Your task to perform on an android device: toggle notification dots Image 0: 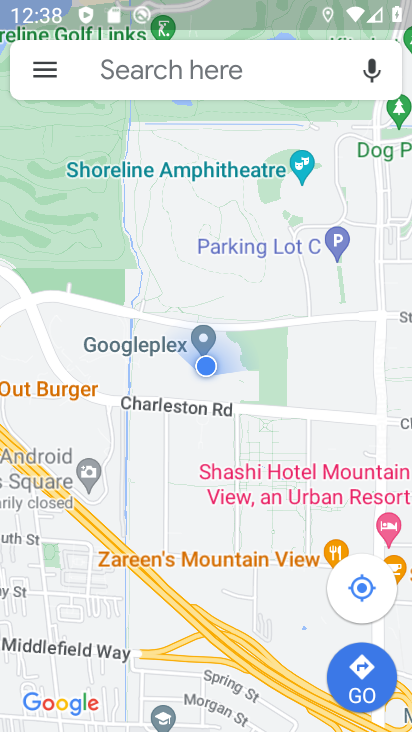
Step 0: press back button
Your task to perform on an android device: toggle notification dots Image 1: 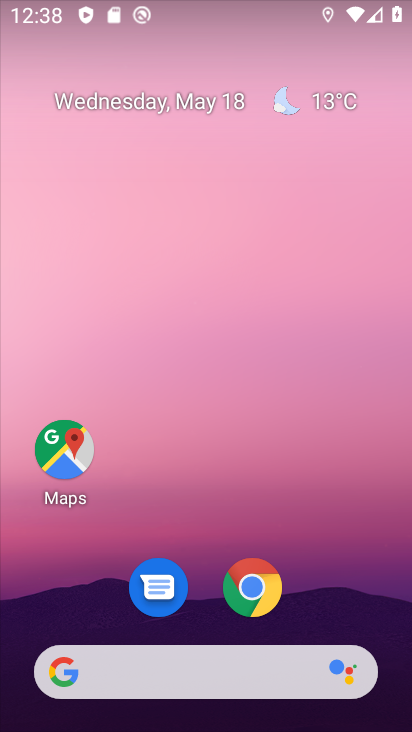
Step 1: drag from (176, 604) to (270, 146)
Your task to perform on an android device: toggle notification dots Image 2: 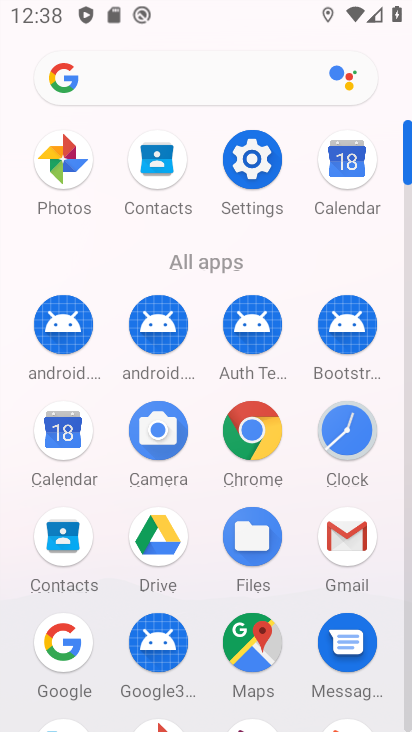
Step 2: click (264, 174)
Your task to perform on an android device: toggle notification dots Image 3: 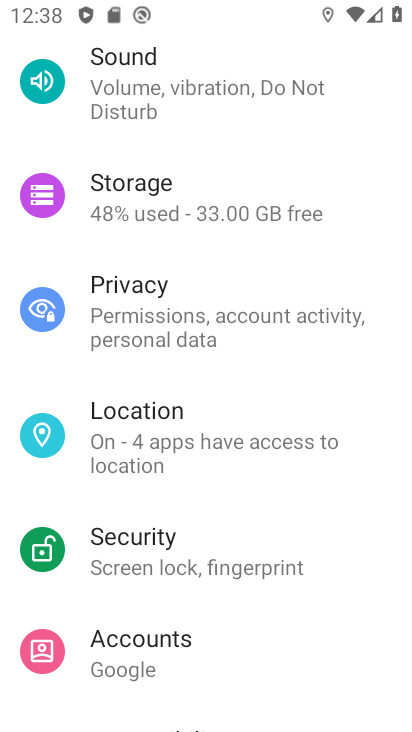
Step 3: drag from (208, 193) to (194, 570)
Your task to perform on an android device: toggle notification dots Image 4: 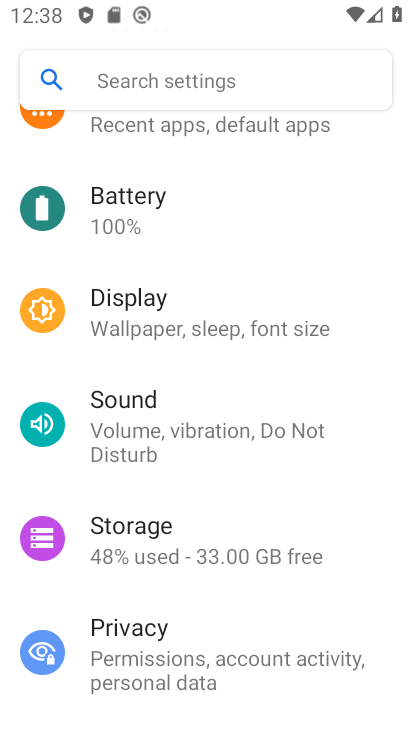
Step 4: drag from (184, 210) to (121, 604)
Your task to perform on an android device: toggle notification dots Image 5: 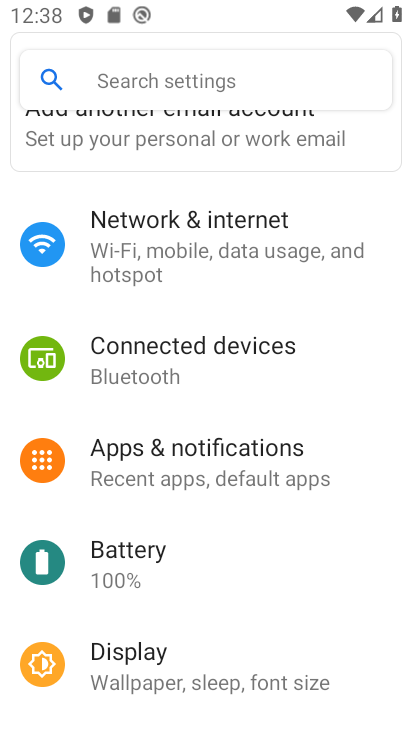
Step 5: click (290, 449)
Your task to perform on an android device: toggle notification dots Image 6: 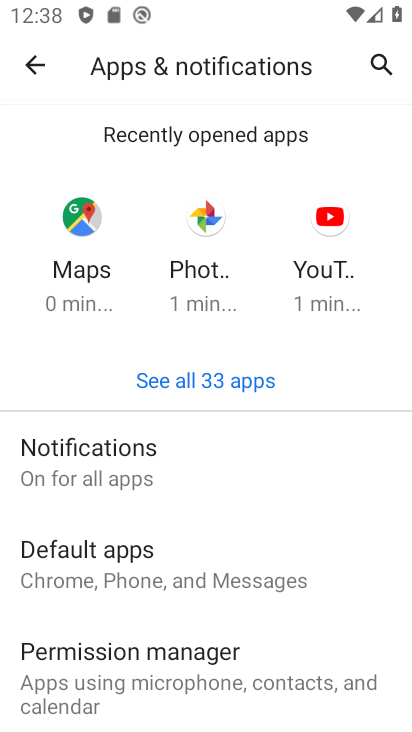
Step 6: click (185, 466)
Your task to perform on an android device: toggle notification dots Image 7: 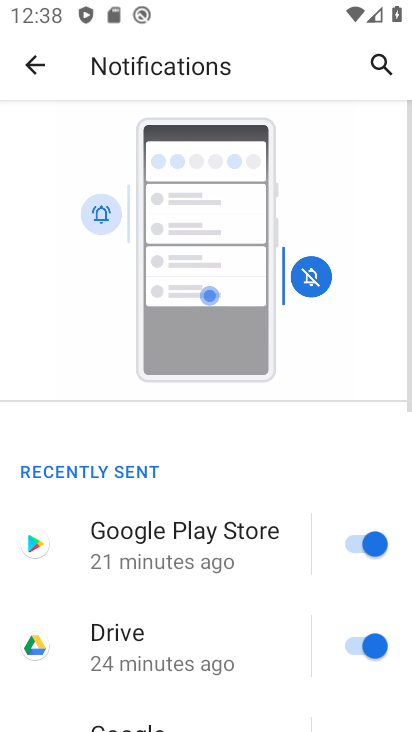
Step 7: drag from (148, 698) to (266, 223)
Your task to perform on an android device: toggle notification dots Image 8: 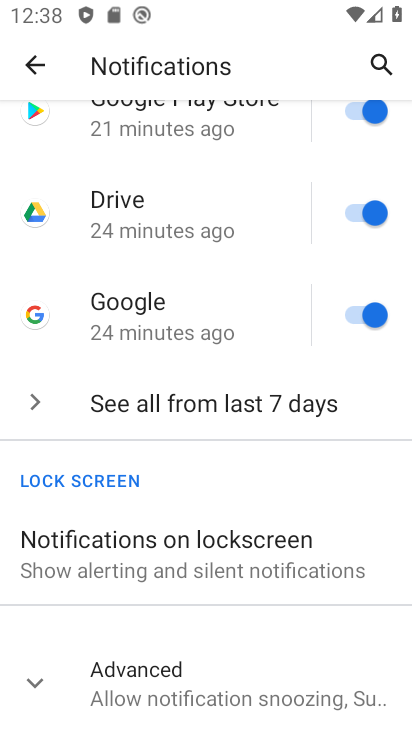
Step 8: drag from (211, 603) to (269, 189)
Your task to perform on an android device: toggle notification dots Image 9: 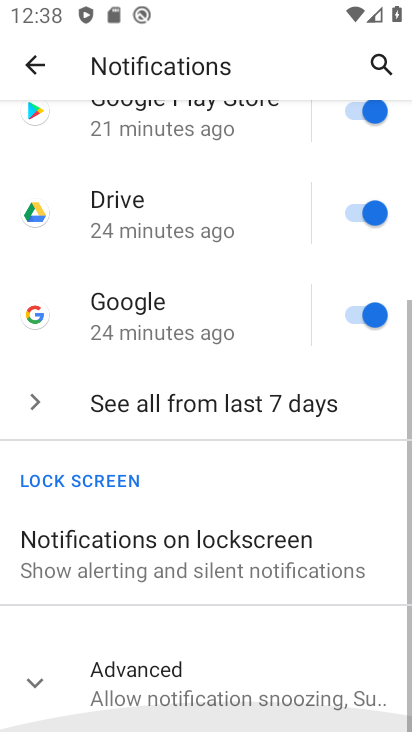
Step 9: click (236, 673)
Your task to perform on an android device: toggle notification dots Image 10: 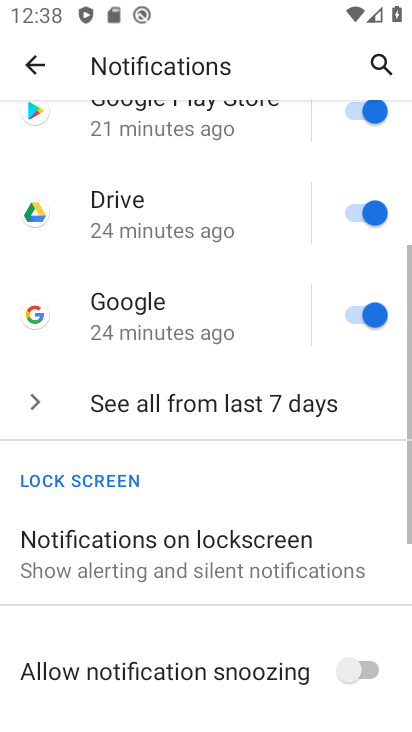
Step 10: drag from (247, 635) to (303, 268)
Your task to perform on an android device: toggle notification dots Image 11: 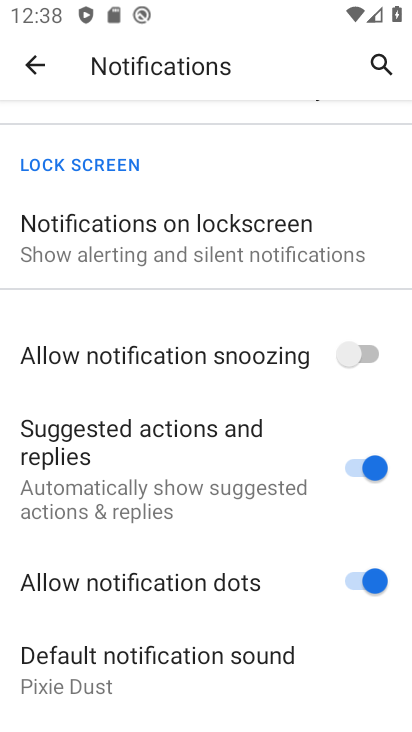
Step 11: click (360, 583)
Your task to perform on an android device: toggle notification dots Image 12: 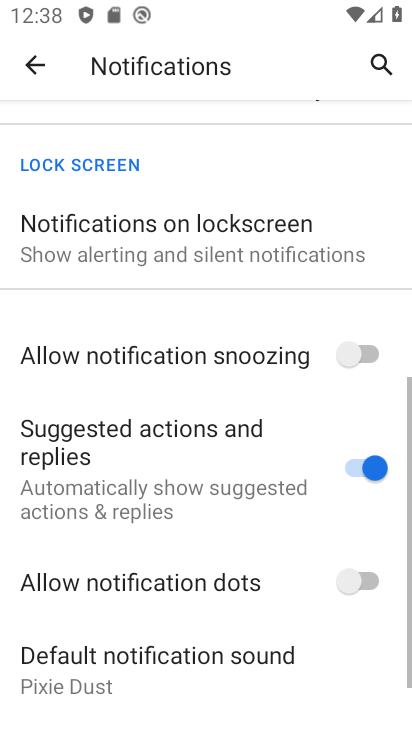
Step 12: task complete